Your task to perform on an android device: How much does a 2 bedroom apartment rent for in Boston? Image 0: 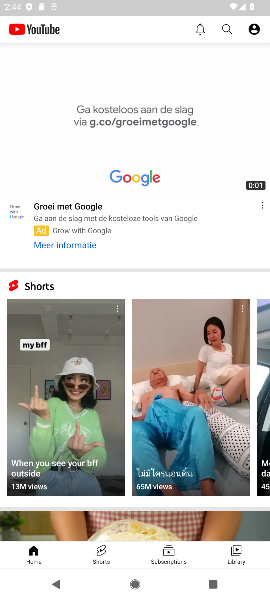
Step 0: press home button
Your task to perform on an android device: How much does a 2 bedroom apartment rent for in Boston? Image 1: 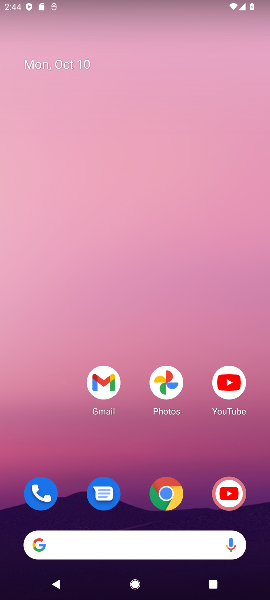
Step 1: click (158, 488)
Your task to perform on an android device: How much does a 2 bedroom apartment rent for in Boston? Image 2: 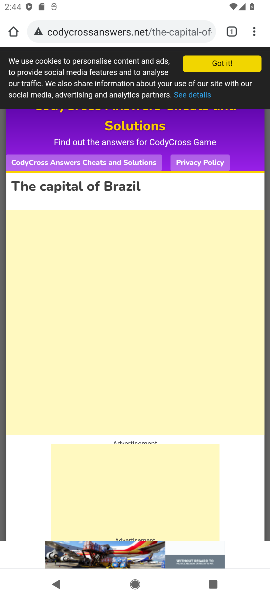
Step 2: click (139, 26)
Your task to perform on an android device: How much does a 2 bedroom apartment rent for in Boston? Image 3: 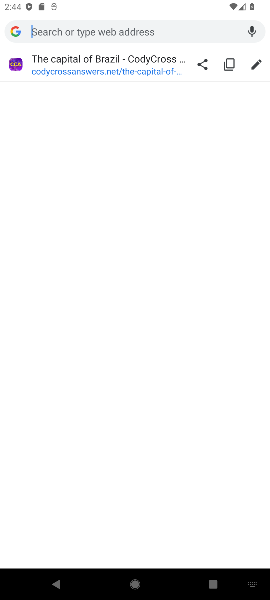
Step 3: type "how much does a 2 bedroom apartment rent for in boston?"
Your task to perform on an android device: How much does a 2 bedroom apartment rent for in Boston? Image 4: 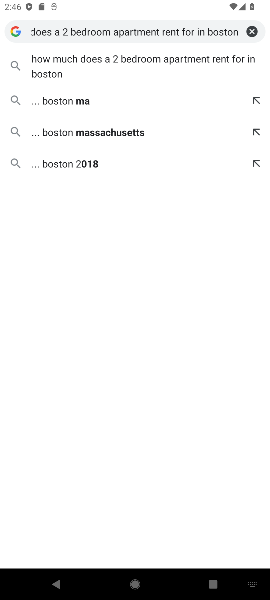
Step 4: click (161, 67)
Your task to perform on an android device: How much does a 2 bedroom apartment rent for in Boston? Image 5: 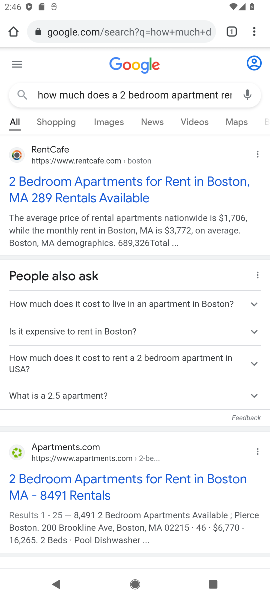
Step 5: click (142, 191)
Your task to perform on an android device: How much does a 2 bedroom apartment rent for in Boston? Image 6: 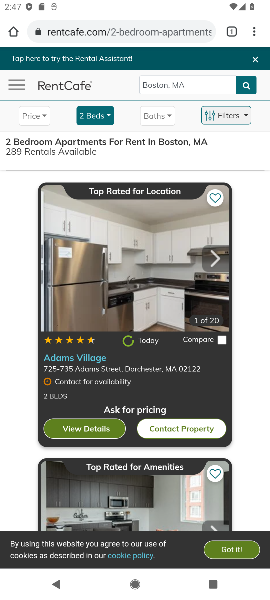
Step 6: task complete